Your task to perform on an android device: Search for seafood restaurants on Google Maps Image 0: 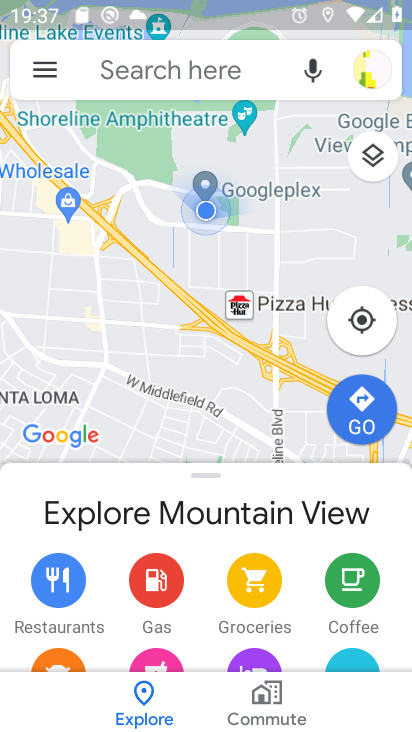
Step 0: click (246, 65)
Your task to perform on an android device: Search for seafood restaurants on Google Maps Image 1: 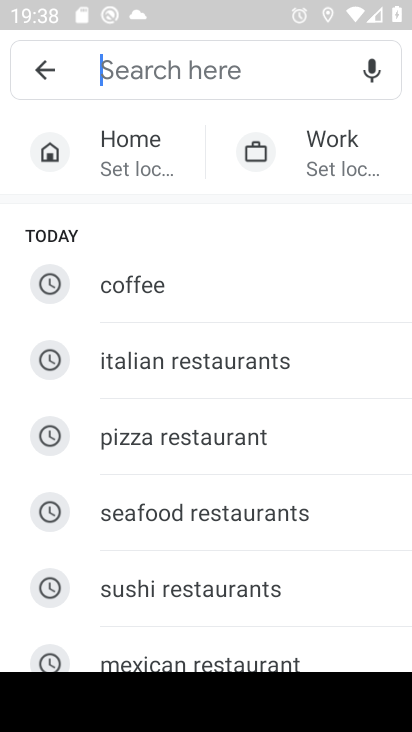
Step 1: click (211, 499)
Your task to perform on an android device: Search for seafood restaurants on Google Maps Image 2: 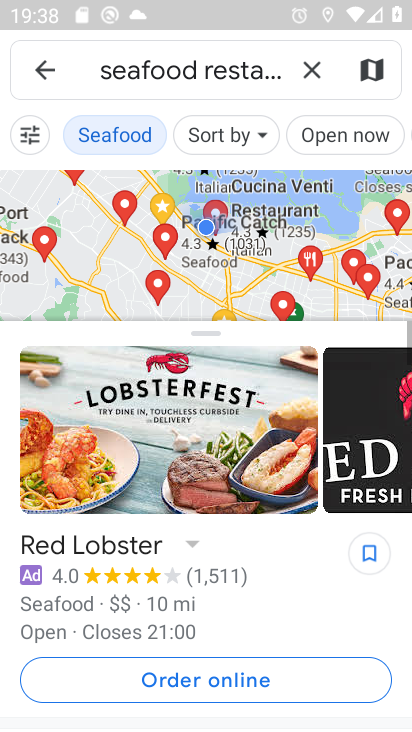
Step 2: task complete